Your task to perform on an android device: toggle notifications settings in the gmail app Image 0: 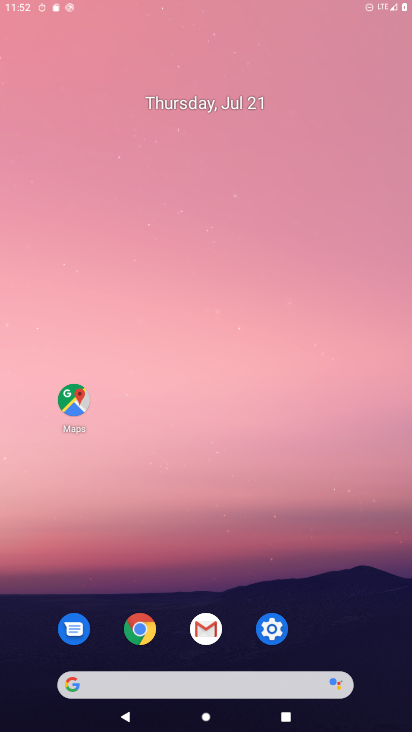
Step 0: press home button
Your task to perform on an android device: toggle notifications settings in the gmail app Image 1: 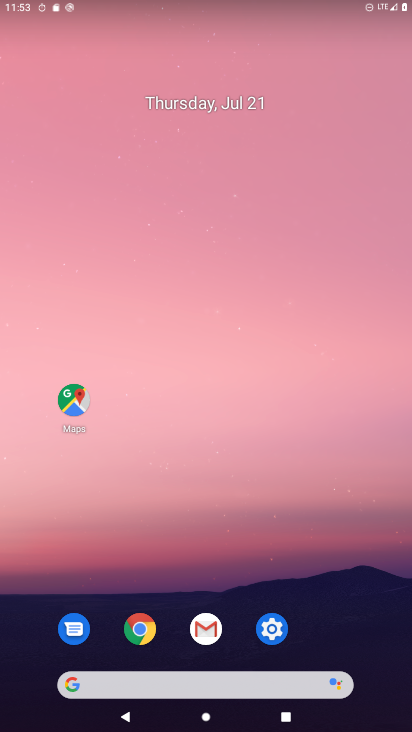
Step 1: click (141, 621)
Your task to perform on an android device: toggle notifications settings in the gmail app Image 2: 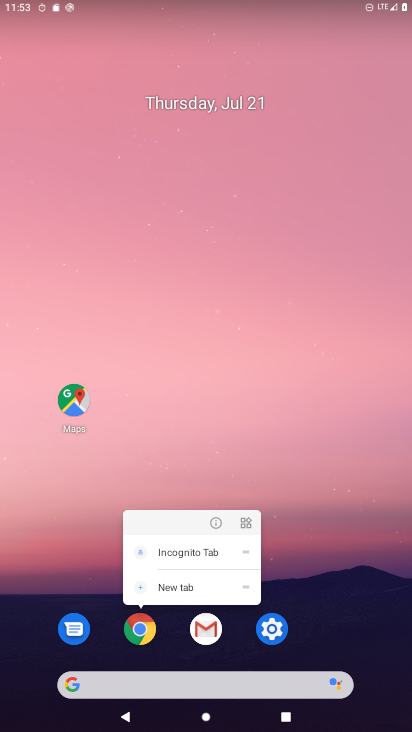
Step 2: click (140, 628)
Your task to perform on an android device: toggle notifications settings in the gmail app Image 3: 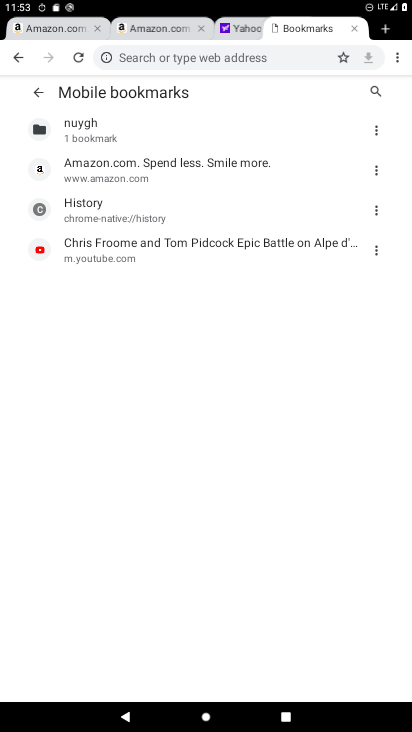
Step 3: click (398, 56)
Your task to perform on an android device: toggle notifications settings in the gmail app Image 4: 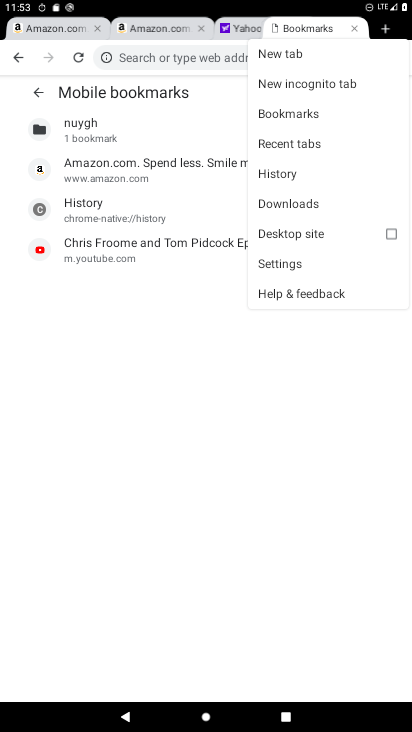
Step 4: click (282, 262)
Your task to perform on an android device: toggle notifications settings in the gmail app Image 5: 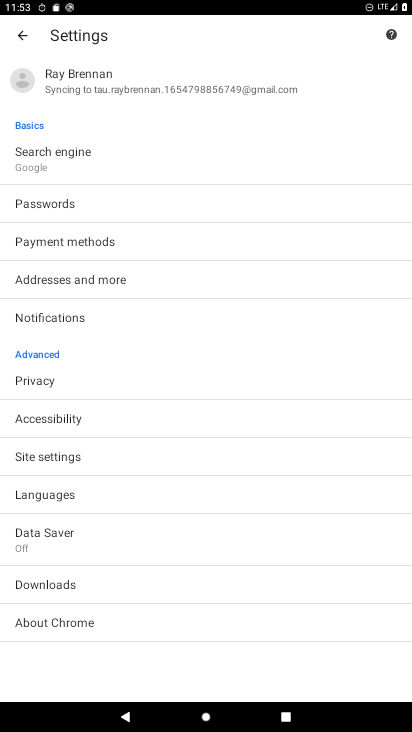
Step 5: click (39, 457)
Your task to perform on an android device: toggle notifications settings in the gmail app Image 6: 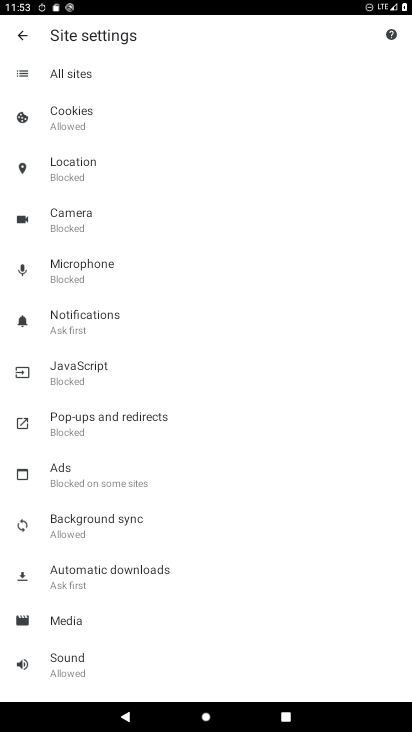
Step 6: click (74, 322)
Your task to perform on an android device: toggle notifications settings in the gmail app Image 7: 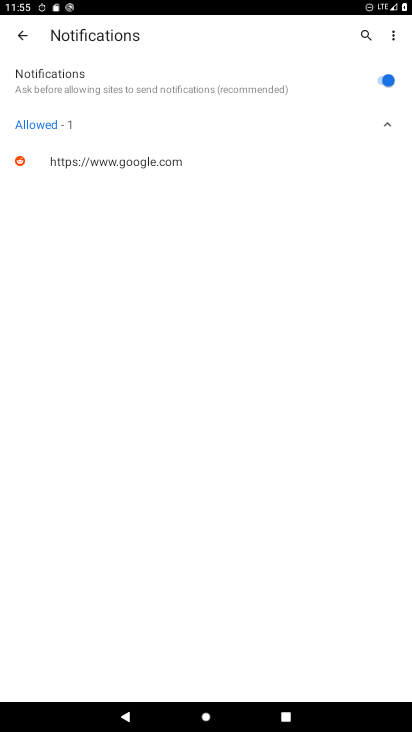
Step 7: task complete